Your task to perform on an android device: Open Maps and search for coffee Image 0: 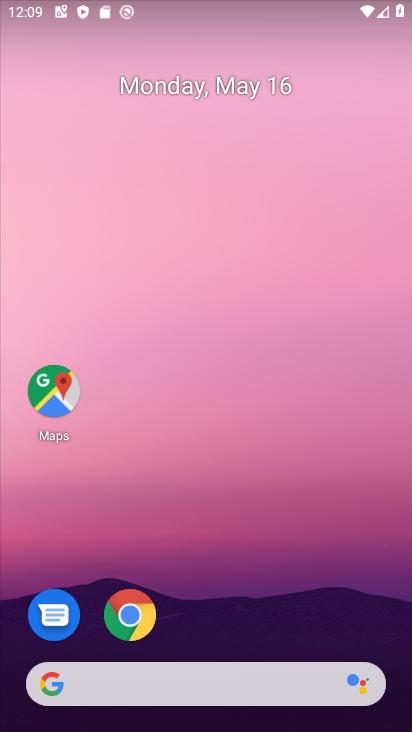
Step 0: drag from (346, 698) to (324, 61)
Your task to perform on an android device: Open Maps and search for coffee Image 1: 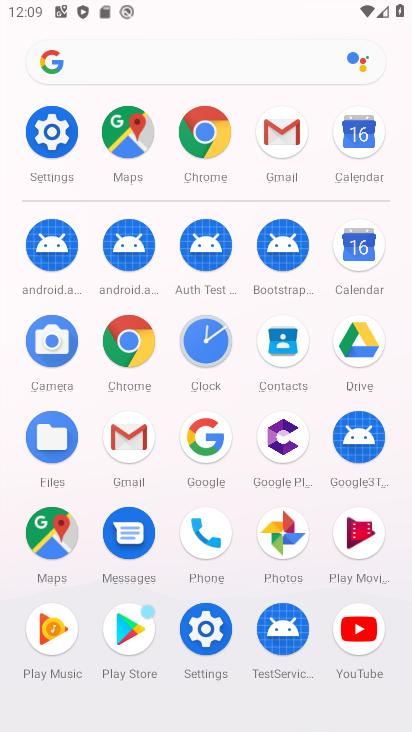
Step 1: click (29, 539)
Your task to perform on an android device: Open Maps and search for coffee Image 2: 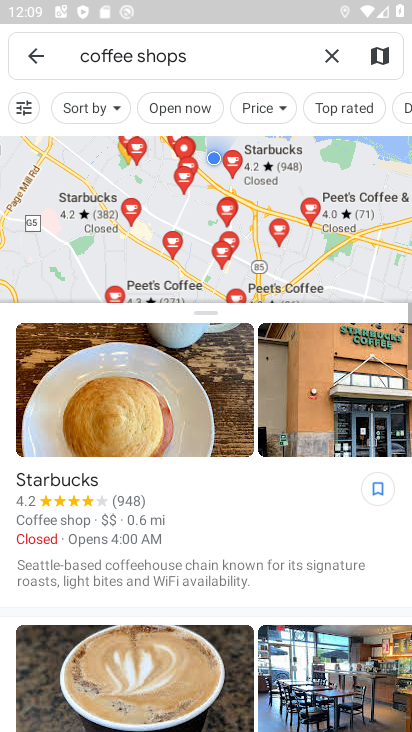
Step 2: click (328, 55)
Your task to perform on an android device: Open Maps and search for coffee Image 3: 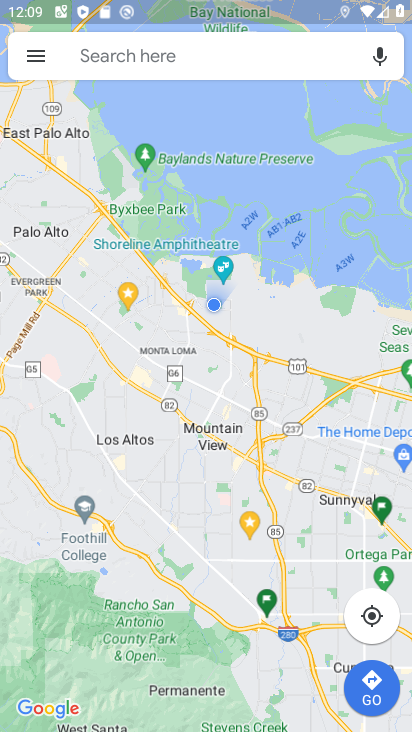
Step 3: click (205, 58)
Your task to perform on an android device: Open Maps and search for coffee Image 4: 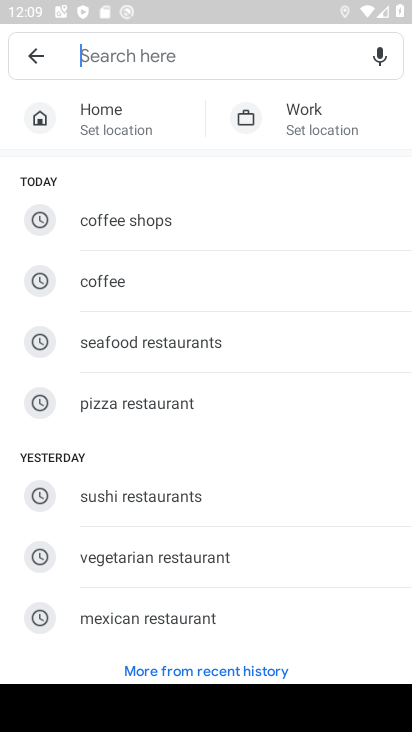
Step 4: click (133, 284)
Your task to perform on an android device: Open Maps and search for coffee Image 5: 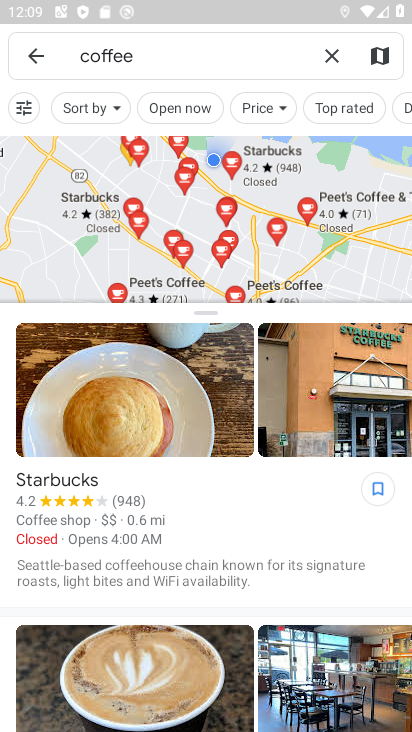
Step 5: task complete